Your task to perform on an android device: Show me productivity apps on the Play Store Image 0: 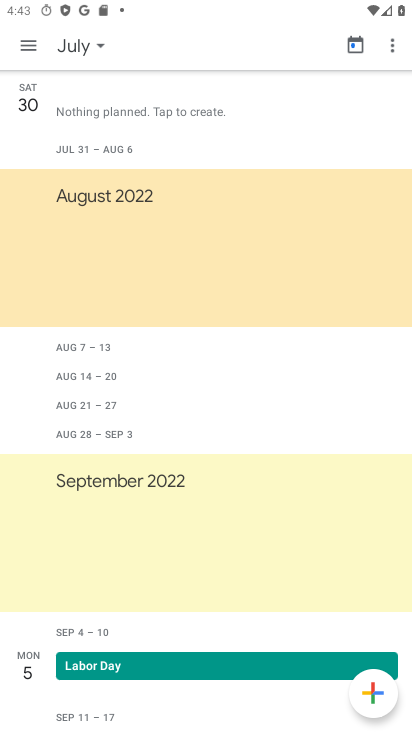
Step 0: press home button
Your task to perform on an android device: Show me productivity apps on the Play Store Image 1: 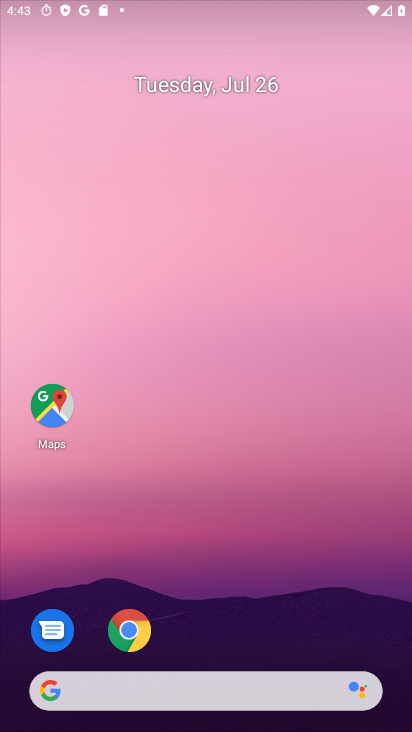
Step 1: drag from (333, 585) to (333, 48)
Your task to perform on an android device: Show me productivity apps on the Play Store Image 2: 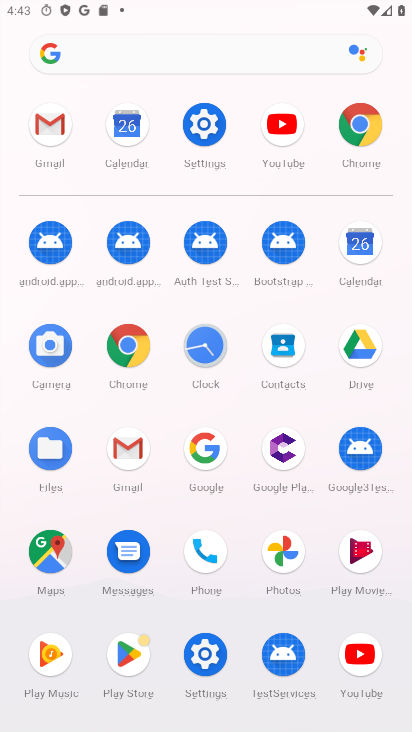
Step 2: click (130, 655)
Your task to perform on an android device: Show me productivity apps on the Play Store Image 3: 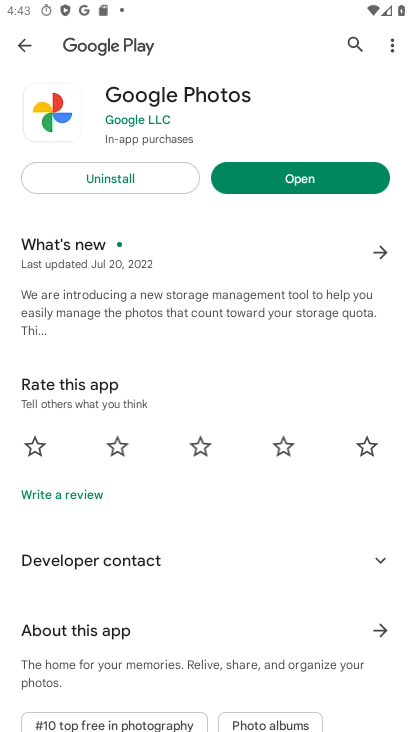
Step 3: click (19, 46)
Your task to perform on an android device: Show me productivity apps on the Play Store Image 4: 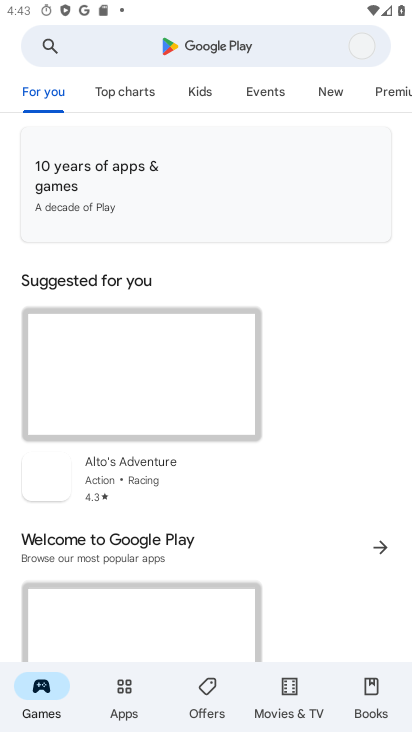
Step 4: click (137, 705)
Your task to perform on an android device: Show me productivity apps on the Play Store Image 5: 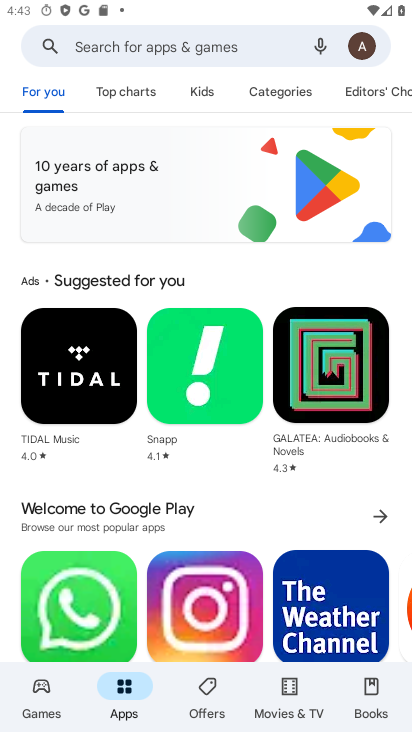
Step 5: task complete